Your task to perform on an android device: turn notification dots off Image 0: 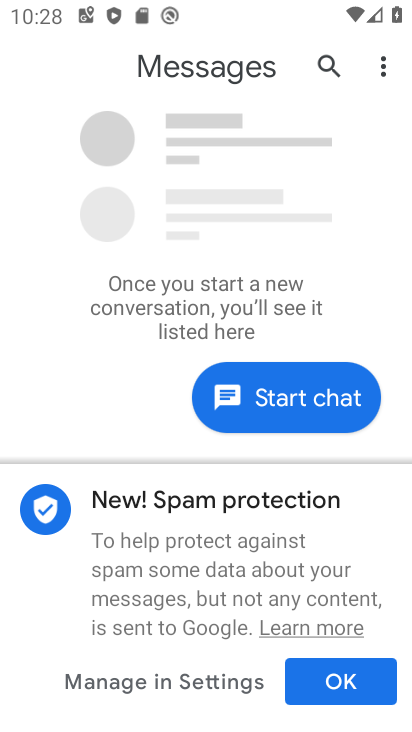
Step 0: press home button
Your task to perform on an android device: turn notification dots off Image 1: 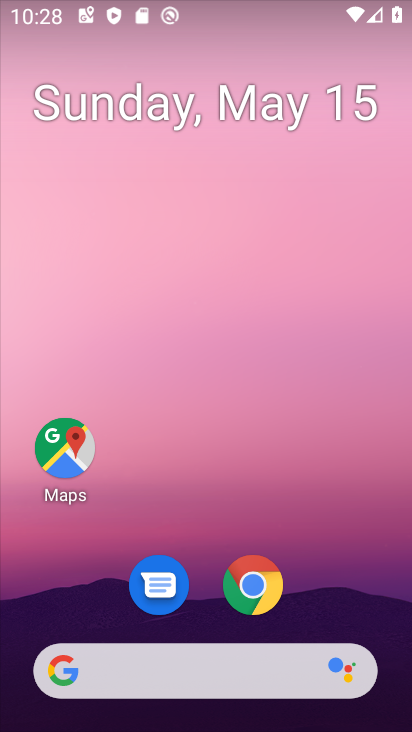
Step 1: drag from (214, 498) to (252, 37)
Your task to perform on an android device: turn notification dots off Image 2: 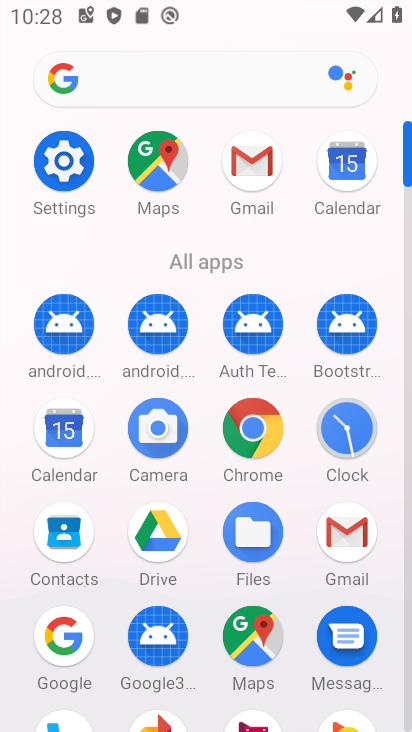
Step 2: click (65, 163)
Your task to perform on an android device: turn notification dots off Image 3: 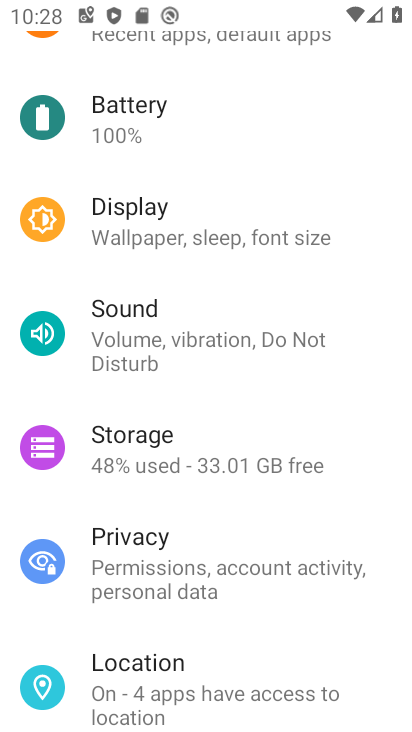
Step 3: drag from (253, 189) to (265, 648)
Your task to perform on an android device: turn notification dots off Image 4: 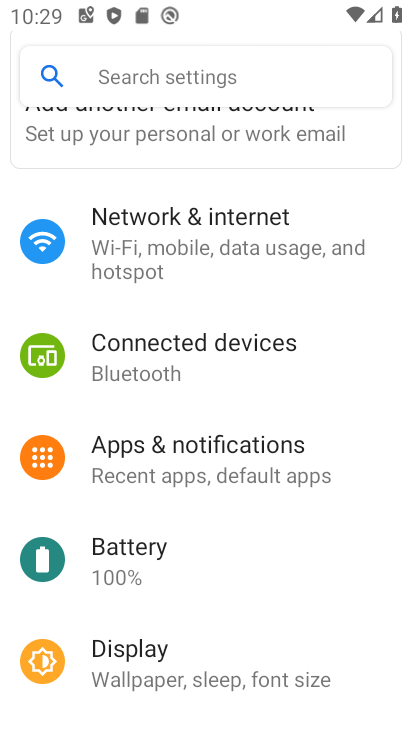
Step 4: click (224, 455)
Your task to perform on an android device: turn notification dots off Image 5: 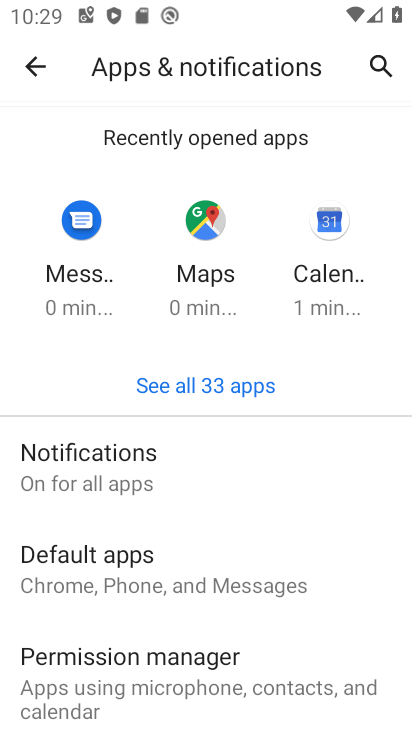
Step 5: click (204, 466)
Your task to perform on an android device: turn notification dots off Image 6: 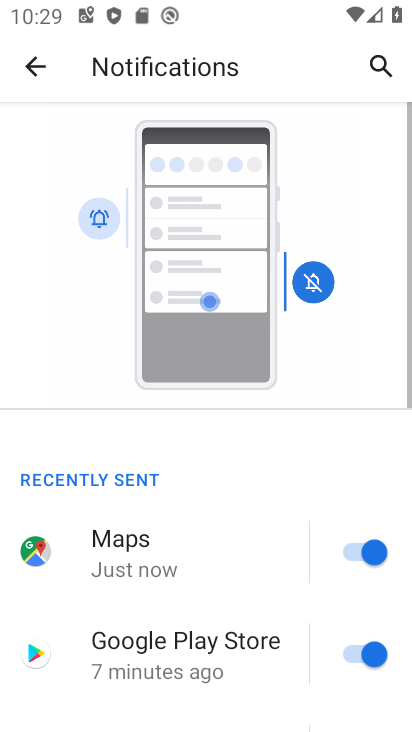
Step 6: drag from (200, 570) to (203, 124)
Your task to perform on an android device: turn notification dots off Image 7: 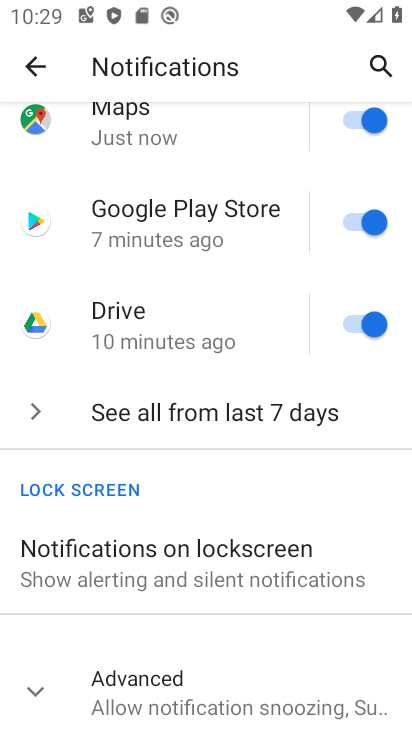
Step 7: click (32, 685)
Your task to perform on an android device: turn notification dots off Image 8: 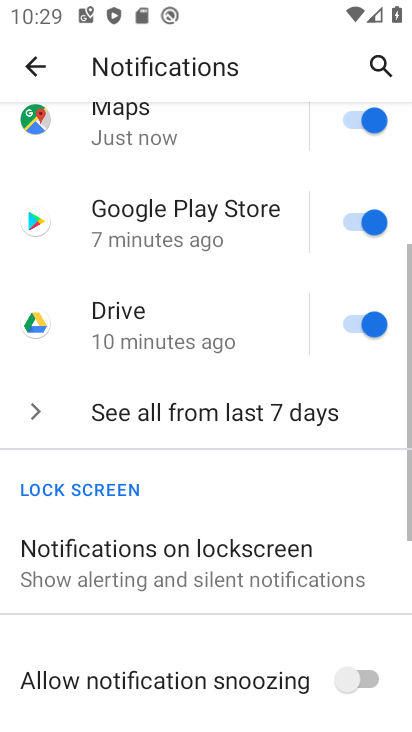
Step 8: drag from (215, 568) to (218, 166)
Your task to perform on an android device: turn notification dots off Image 9: 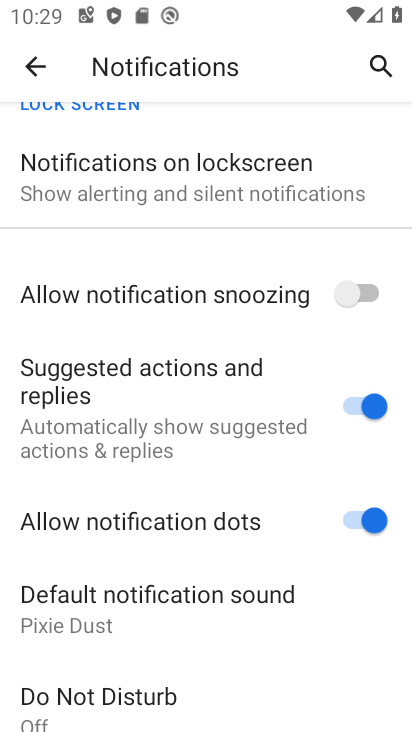
Step 9: click (356, 520)
Your task to perform on an android device: turn notification dots off Image 10: 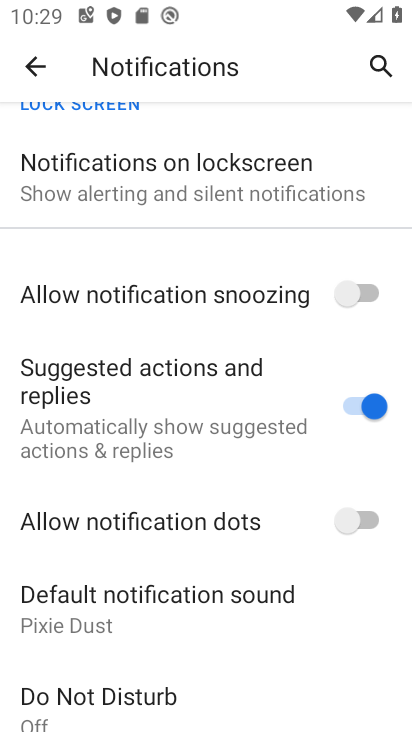
Step 10: task complete